Your task to perform on an android device: turn on notifications settings in the gmail app Image 0: 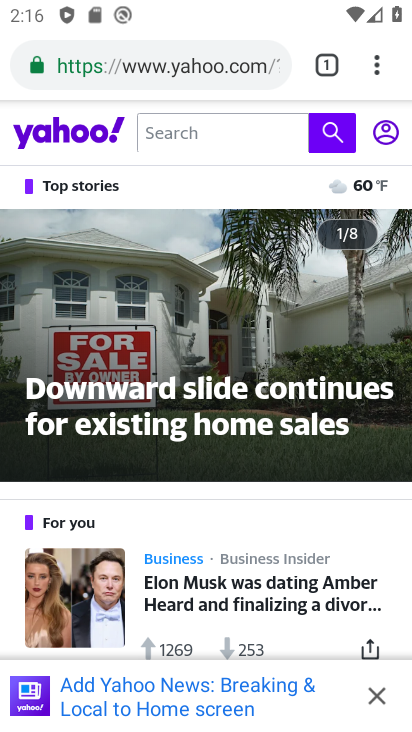
Step 0: press home button
Your task to perform on an android device: turn on notifications settings in the gmail app Image 1: 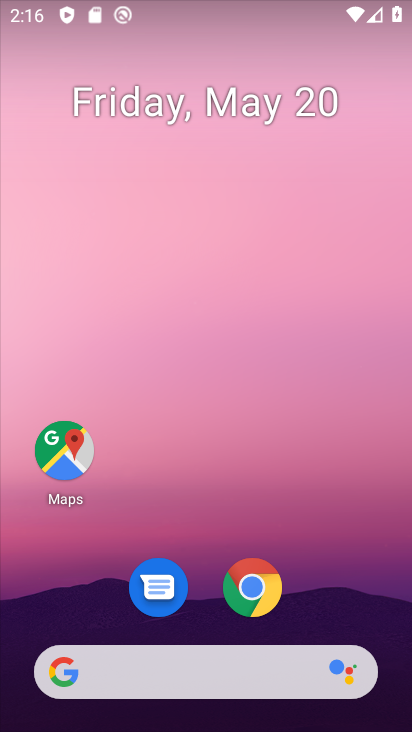
Step 1: drag from (370, 595) to (355, 120)
Your task to perform on an android device: turn on notifications settings in the gmail app Image 2: 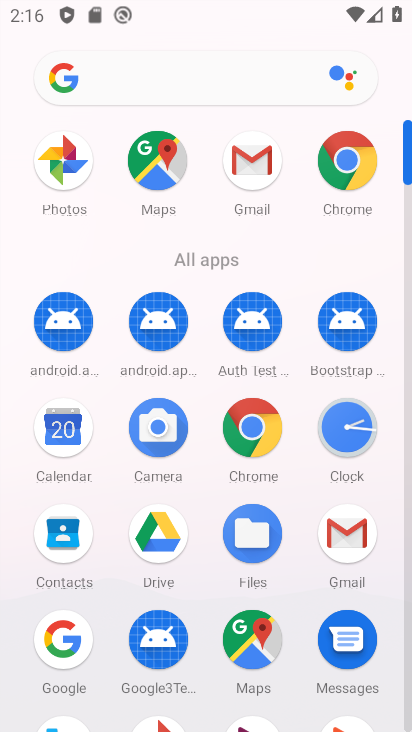
Step 2: click (342, 537)
Your task to perform on an android device: turn on notifications settings in the gmail app Image 3: 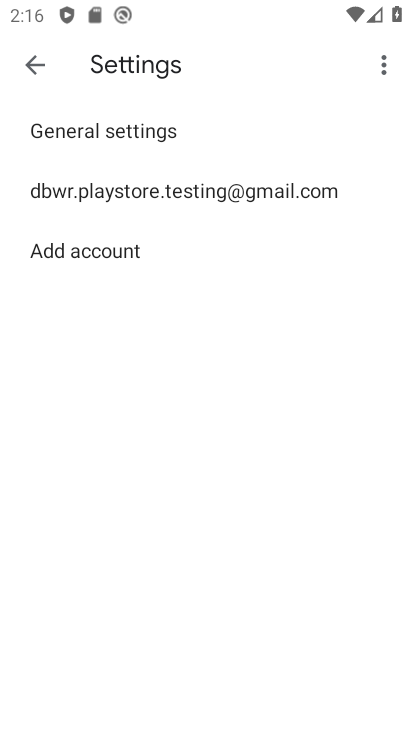
Step 3: click (220, 199)
Your task to perform on an android device: turn on notifications settings in the gmail app Image 4: 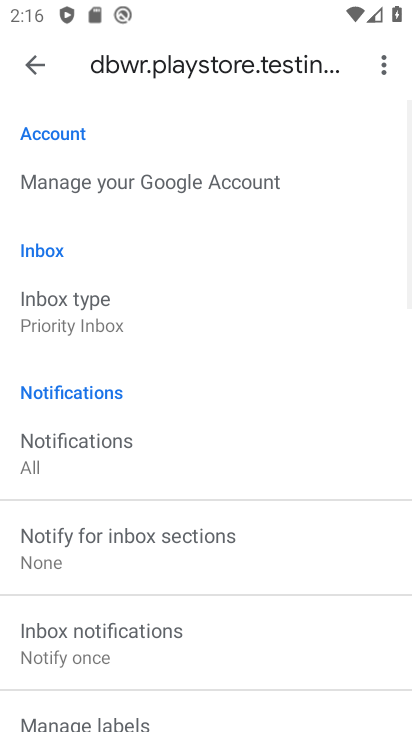
Step 4: drag from (303, 482) to (315, 397)
Your task to perform on an android device: turn on notifications settings in the gmail app Image 5: 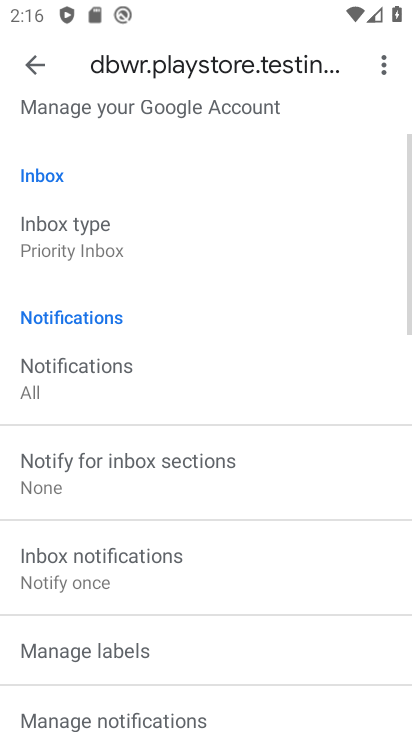
Step 5: drag from (320, 546) to (328, 452)
Your task to perform on an android device: turn on notifications settings in the gmail app Image 6: 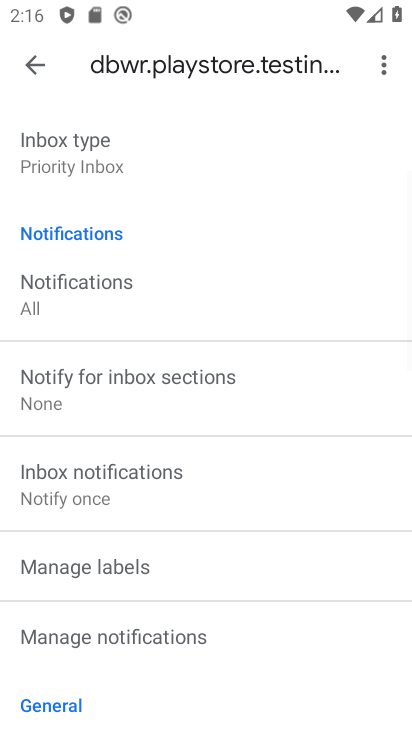
Step 6: drag from (324, 566) to (335, 480)
Your task to perform on an android device: turn on notifications settings in the gmail app Image 7: 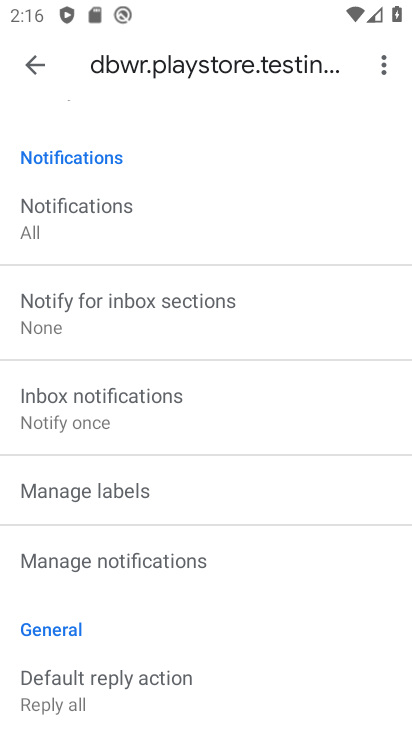
Step 7: drag from (315, 603) to (323, 509)
Your task to perform on an android device: turn on notifications settings in the gmail app Image 8: 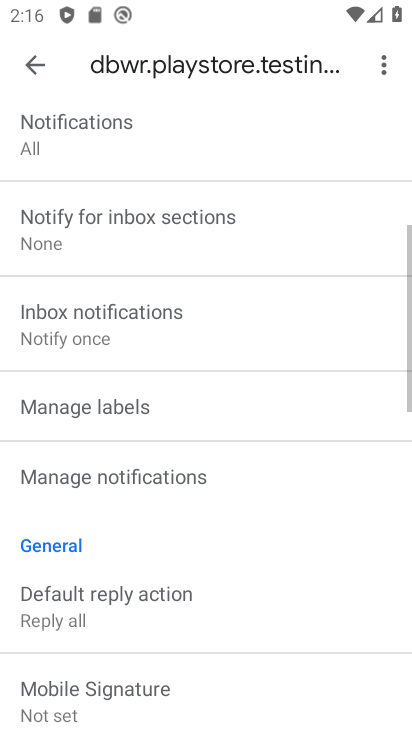
Step 8: drag from (327, 601) to (332, 519)
Your task to perform on an android device: turn on notifications settings in the gmail app Image 9: 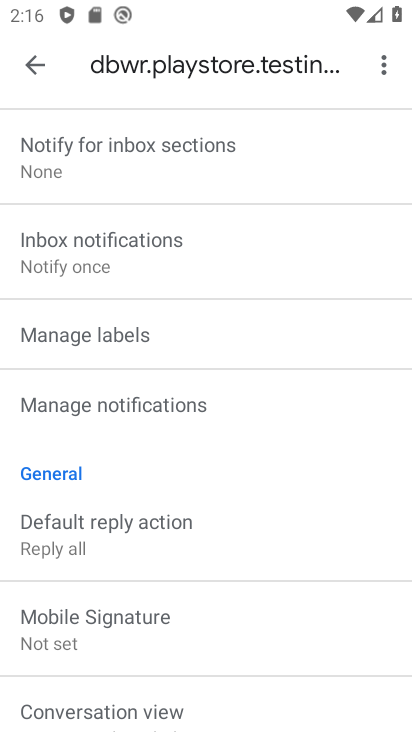
Step 9: drag from (329, 623) to (338, 548)
Your task to perform on an android device: turn on notifications settings in the gmail app Image 10: 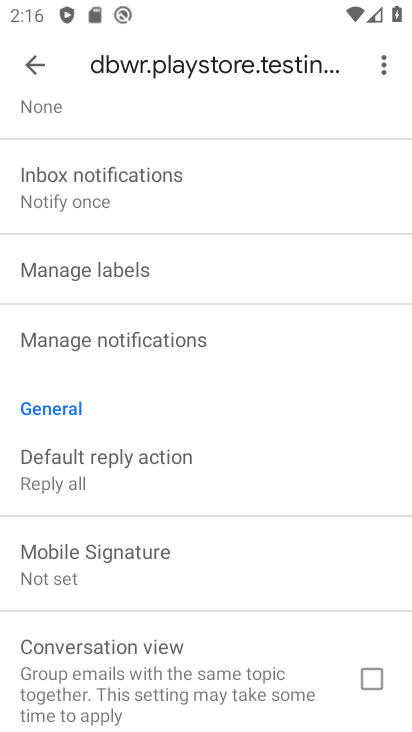
Step 10: drag from (324, 624) to (327, 549)
Your task to perform on an android device: turn on notifications settings in the gmail app Image 11: 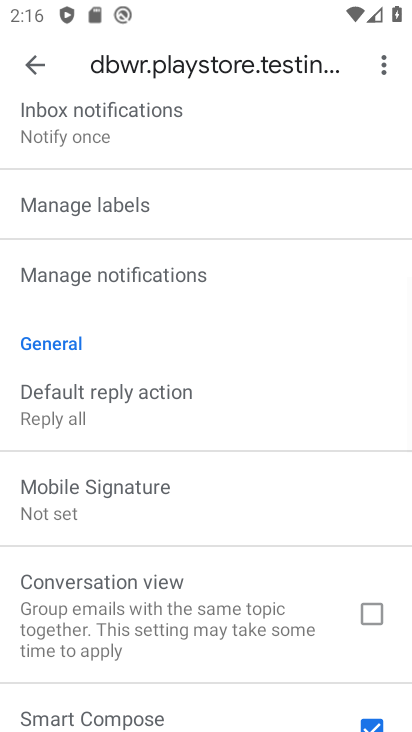
Step 11: drag from (327, 646) to (326, 559)
Your task to perform on an android device: turn on notifications settings in the gmail app Image 12: 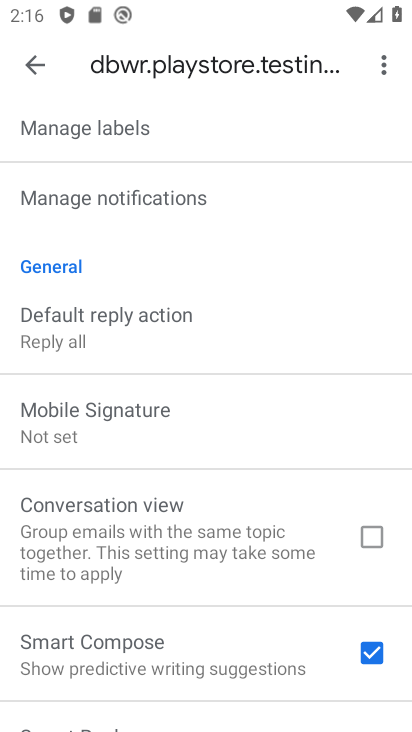
Step 12: drag from (297, 615) to (305, 539)
Your task to perform on an android device: turn on notifications settings in the gmail app Image 13: 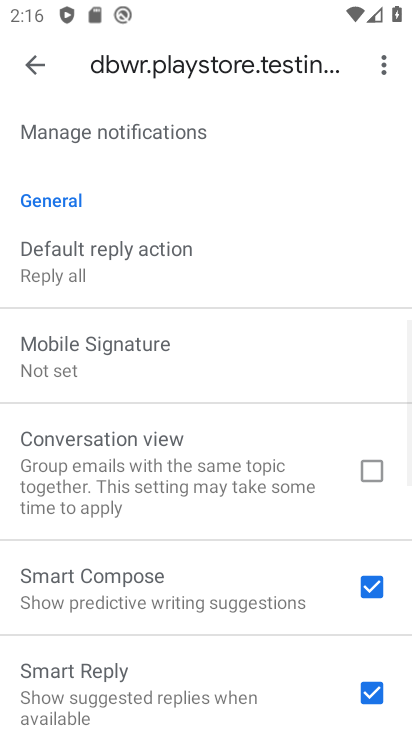
Step 13: drag from (309, 403) to (308, 497)
Your task to perform on an android device: turn on notifications settings in the gmail app Image 14: 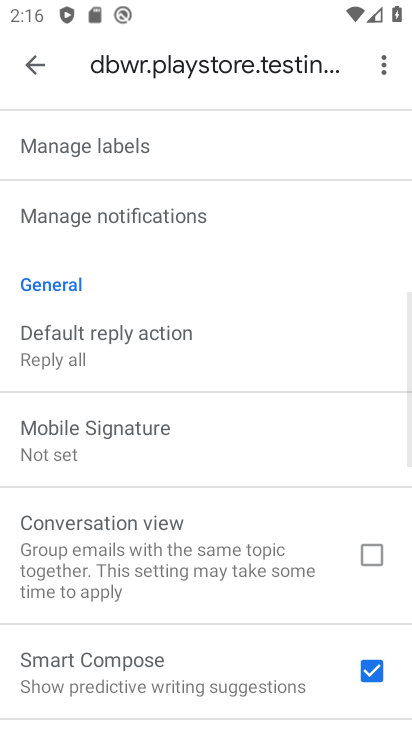
Step 14: drag from (312, 409) to (305, 499)
Your task to perform on an android device: turn on notifications settings in the gmail app Image 15: 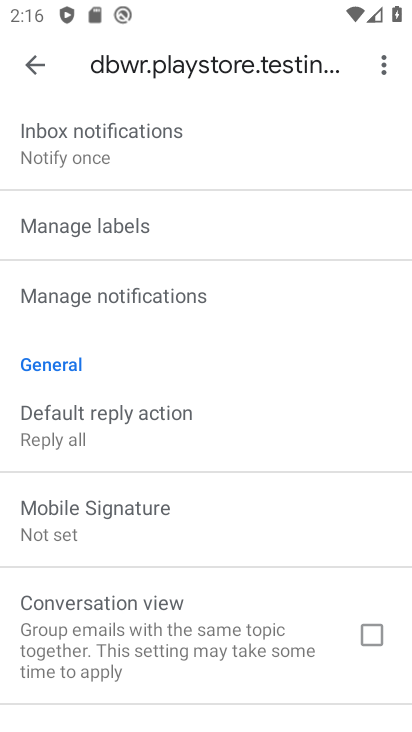
Step 15: drag from (302, 407) to (302, 512)
Your task to perform on an android device: turn on notifications settings in the gmail app Image 16: 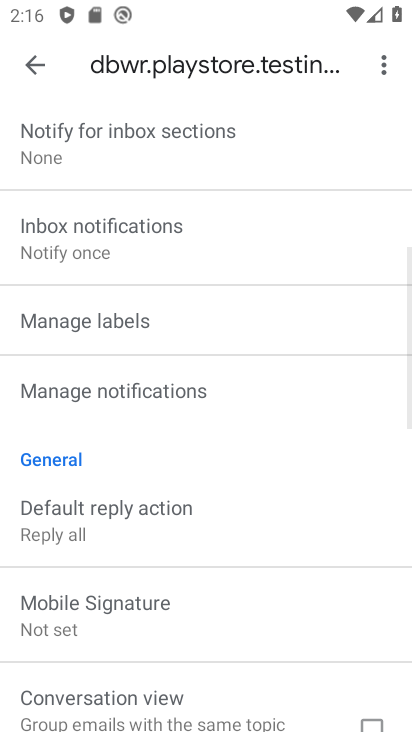
Step 16: drag from (301, 400) to (296, 501)
Your task to perform on an android device: turn on notifications settings in the gmail app Image 17: 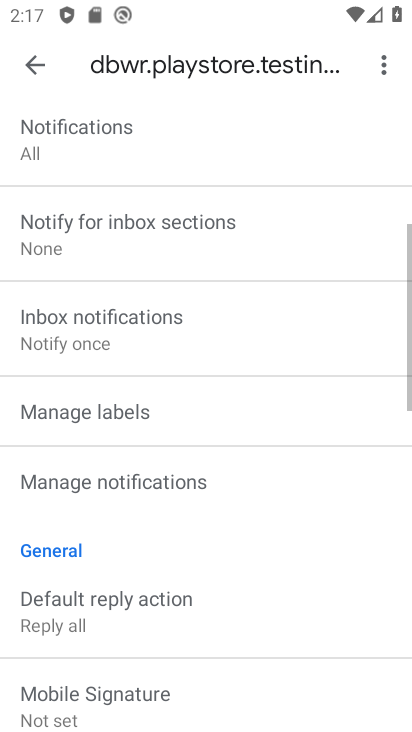
Step 17: drag from (298, 392) to (298, 476)
Your task to perform on an android device: turn on notifications settings in the gmail app Image 18: 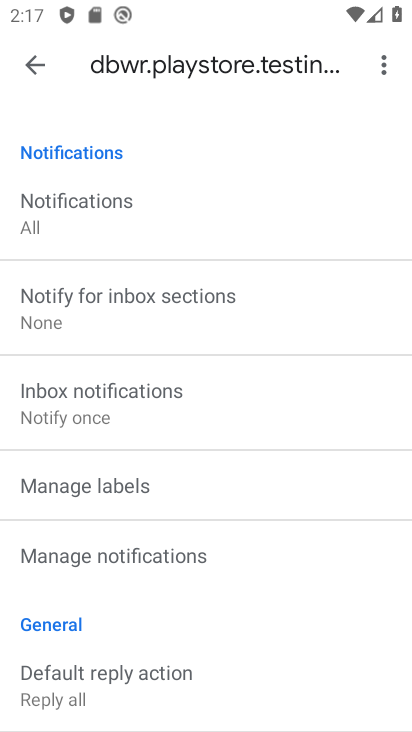
Step 18: drag from (311, 299) to (312, 405)
Your task to perform on an android device: turn on notifications settings in the gmail app Image 19: 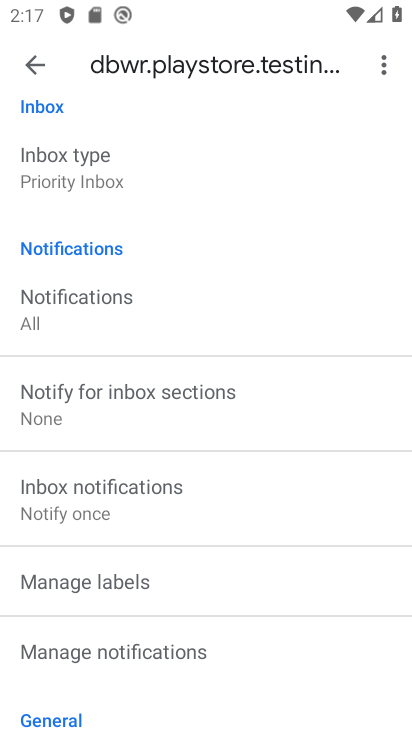
Step 19: drag from (323, 320) to (326, 427)
Your task to perform on an android device: turn on notifications settings in the gmail app Image 20: 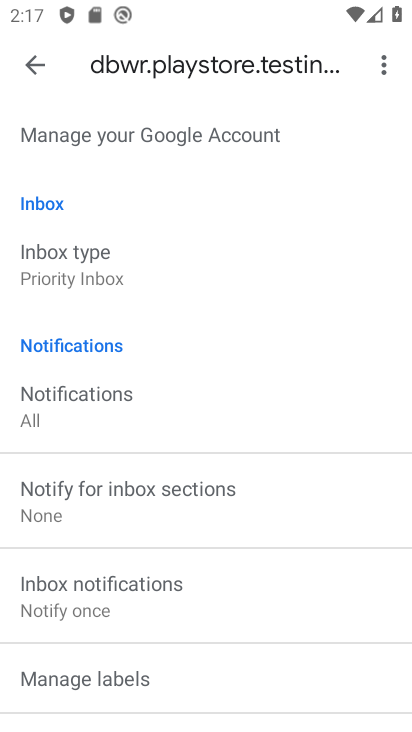
Step 20: drag from (239, 618) to (241, 504)
Your task to perform on an android device: turn on notifications settings in the gmail app Image 21: 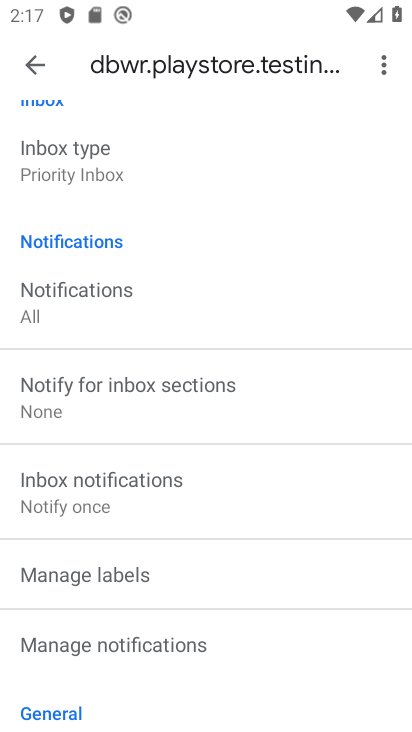
Step 21: click (211, 638)
Your task to perform on an android device: turn on notifications settings in the gmail app Image 22: 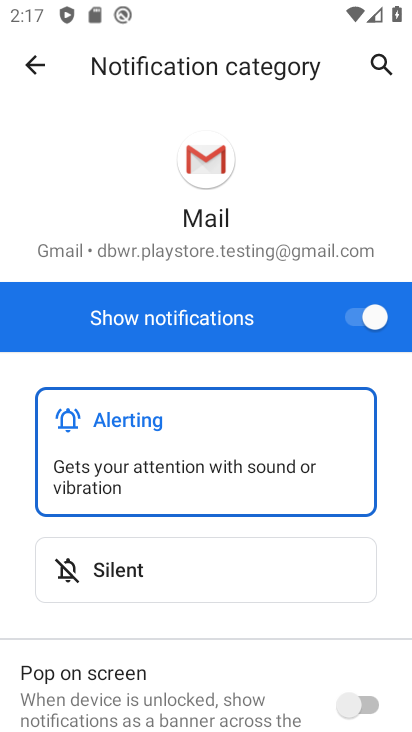
Step 22: task complete